Your task to perform on an android device: Open display settings Image 0: 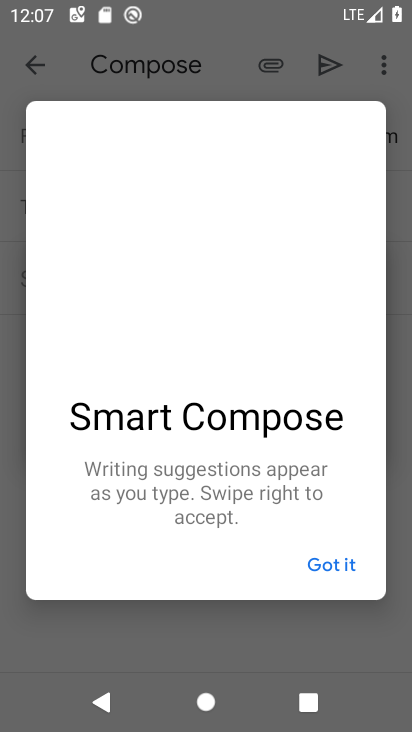
Step 0: press home button
Your task to perform on an android device: Open display settings Image 1: 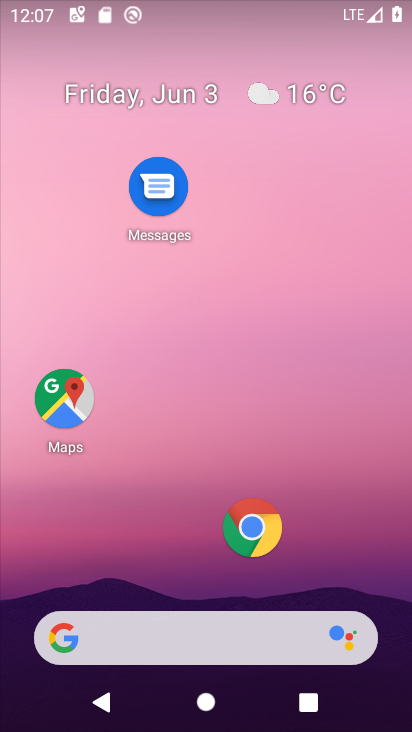
Step 1: drag from (205, 585) to (242, 42)
Your task to perform on an android device: Open display settings Image 2: 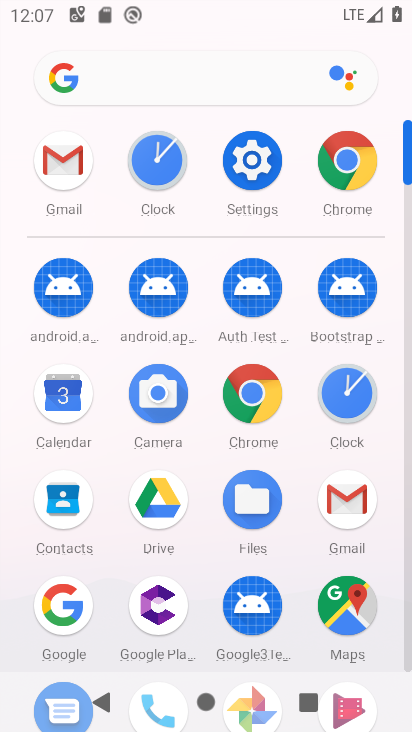
Step 2: click (249, 151)
Your task to perform on an android device: Open display settings Image 3: 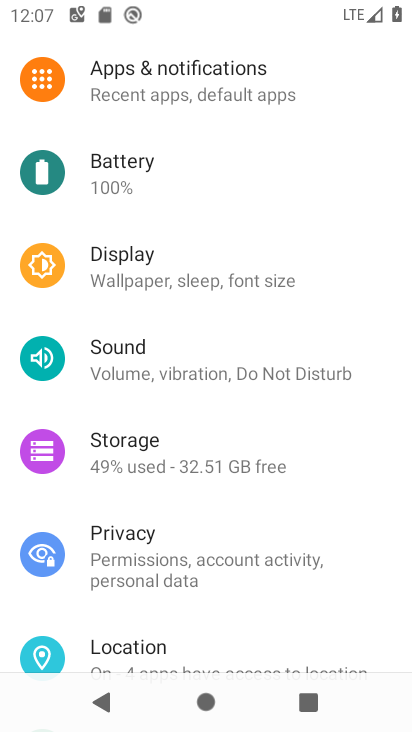
Step 3: click (171, 258)
Your task to perform on an android device: Open display settings Image 4: 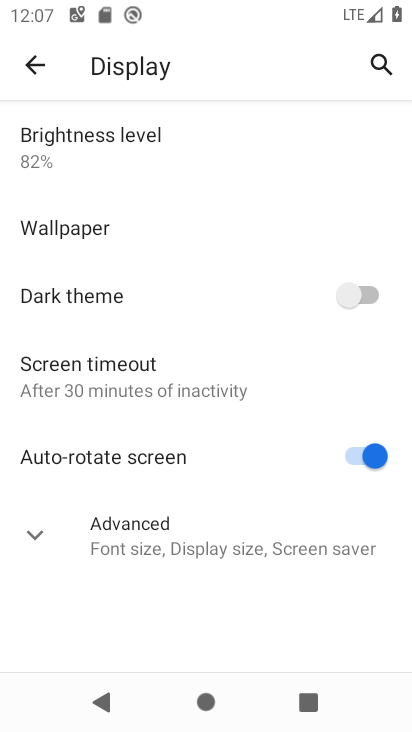
Step 4: click (37, 534)
Your task to perform on an android device: Open display settings Image 5: 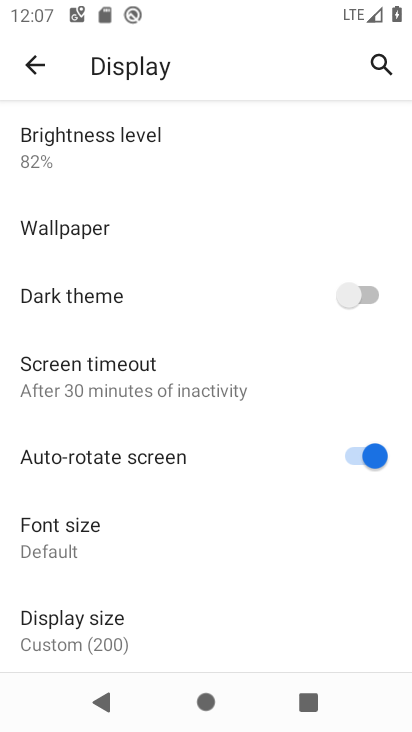
Step 5: task complete